Your task to perform on an android device: Open calendar and show me the third week of next month Image 0: 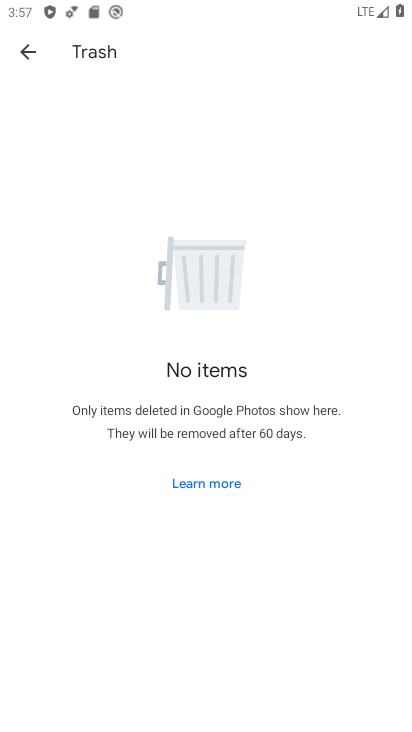
Step 0: press home button
Your task to perform on an android device: Open calendar and show me the third week of next month Image 1: 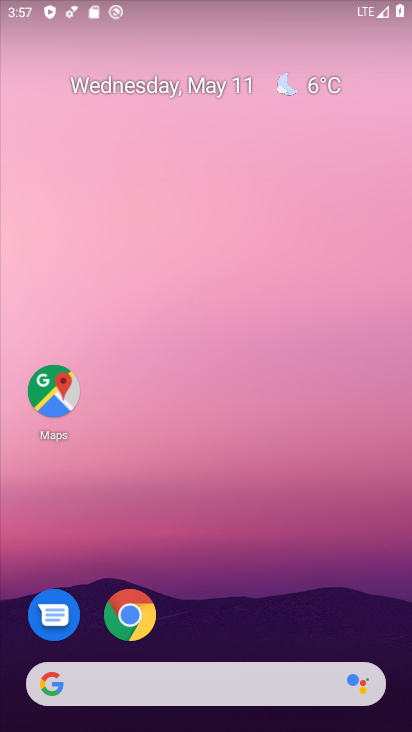
Step 1: drag from (202, 527) to (175, 174)
Your task to perform on an android device: Open calendar and show me the third week of next month Image 2: 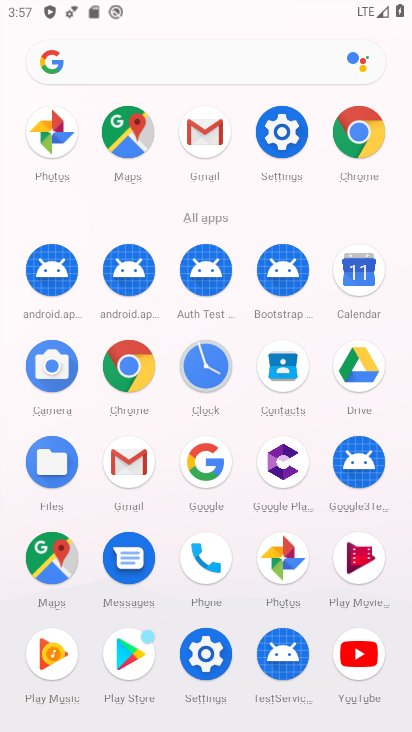
Step 2: click (359, 280)
Your task to perform on an android device: Open calendar and show me the third week of next month Image 3: 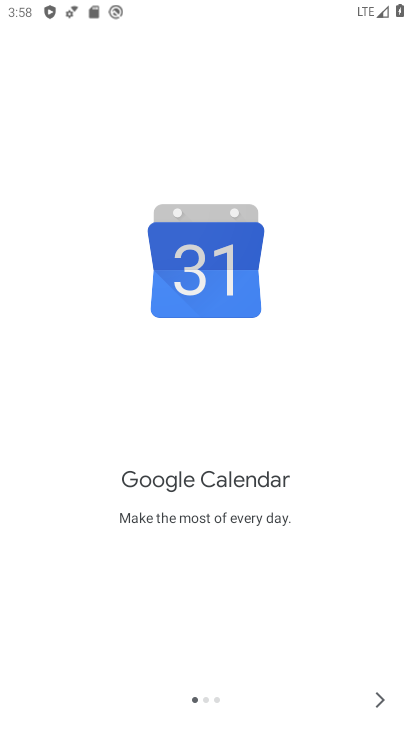
Step 3: click (380, 694)
Your task to perform on an android device: Open calendar and show me the third week of next month Image 4: 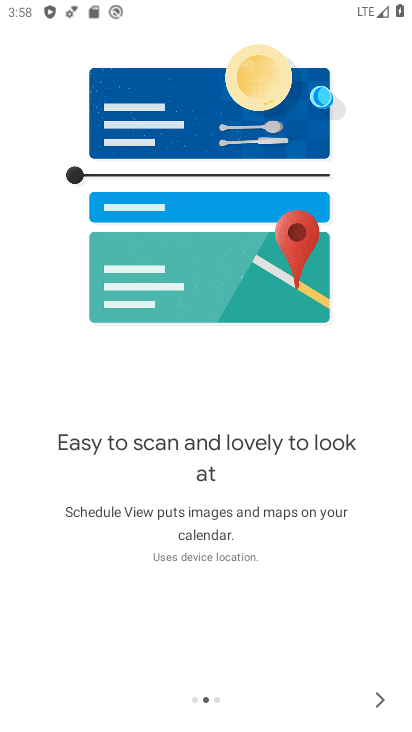
Step 4: click (380, 694)
Your task to perform on an android device: Open calendar and show me the third week of next month Image 5: 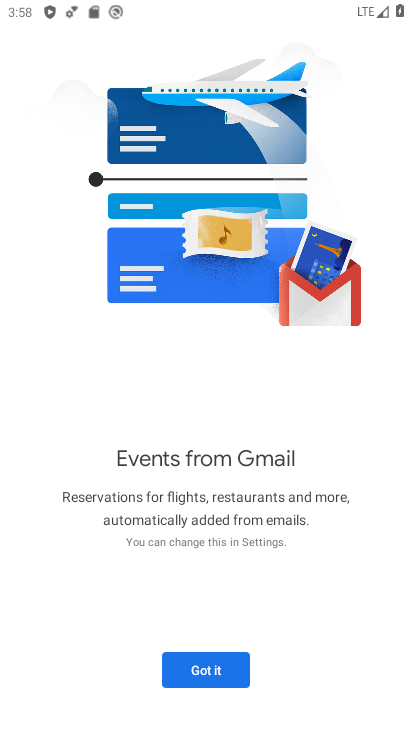
Step 5: click (225, 663)
Your task to perform on an android device: Open calendar and show me the third week of next month Image 6: 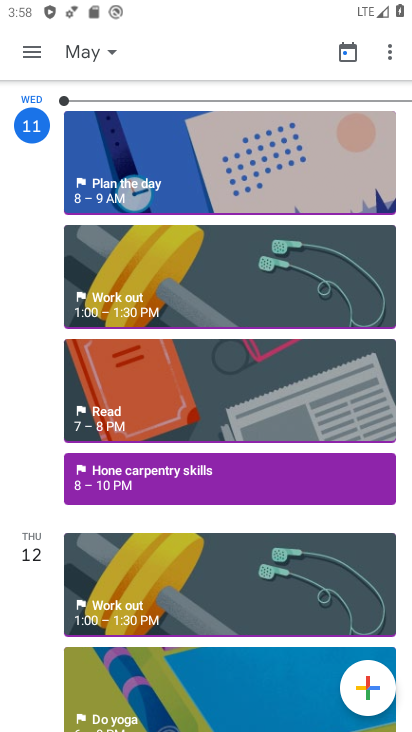
Step 6: click (25, 47)
Your task to perform on an android device: Open calendar and show me the third week of next month Image 7: 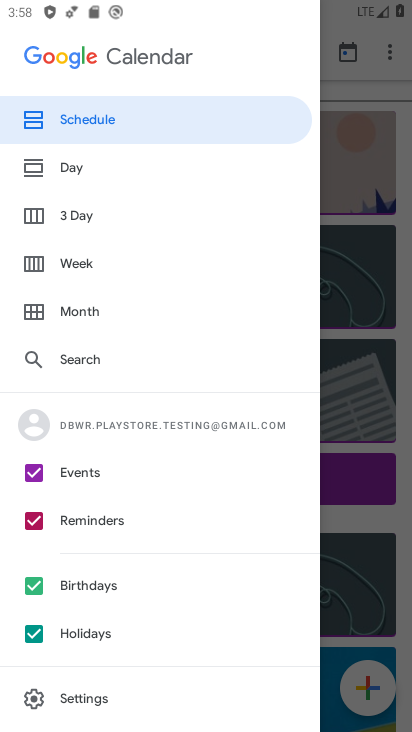
Step 7: click (96, 260)
Your task to perform on an android device: Open calendar and show me the third week of next month Image 8: 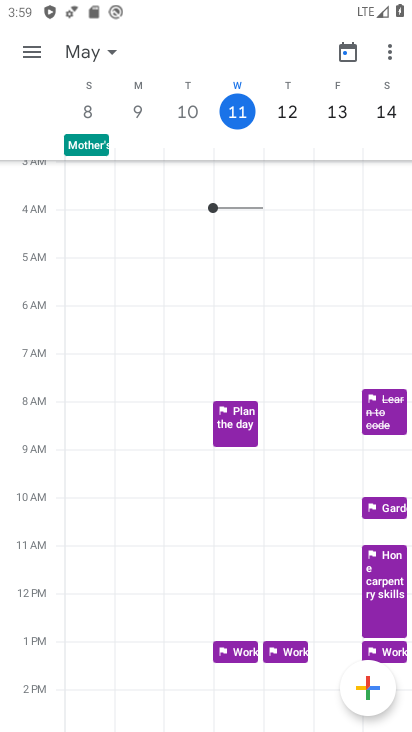
Step 8: click (29, 58)
Your task to perform on an android device: Open calendar and show me the third week of next month Image 9: 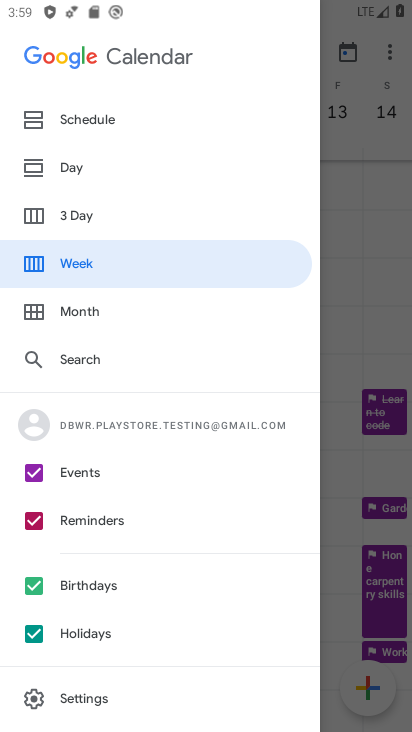
Step 9: click (343, 176)
Your task to perform on an android device: Open calendar and show me the third week of next month Image 10: 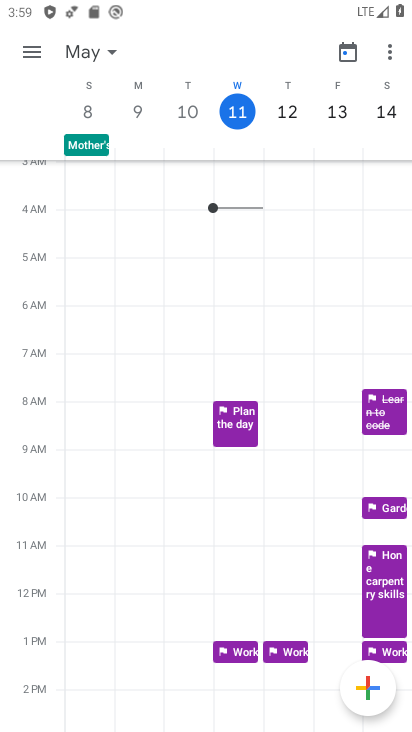
Step 10: click (111, 47)
Your task to perform on an android device: Open calendar and show me the third week of next month Image 11: 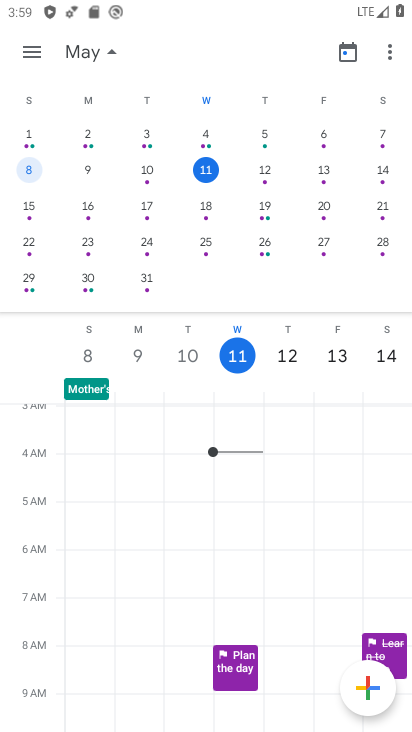
Step 11: drag from (288, 236) to (6, 191)
Your task to perform on an android device: Open calendar and show me the third week of next month Image 12: 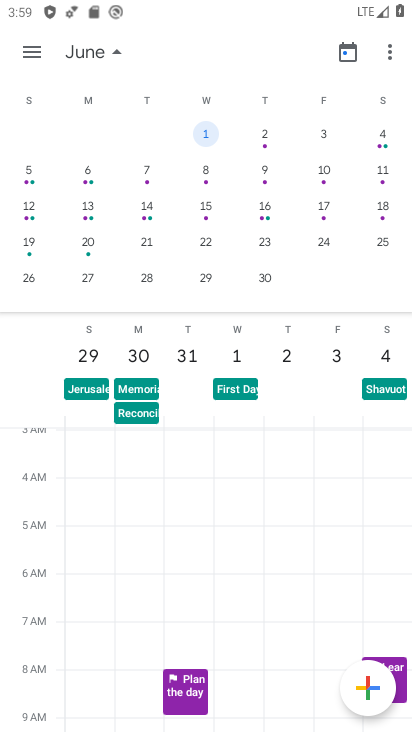
Step 12: click (24, 238)
Your task to perform on an android device: Open calendar and show me the third week of next month Image 13: 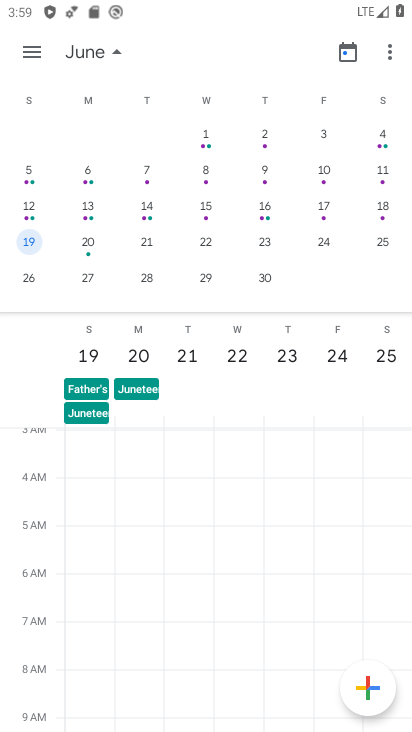
Step 13: task complete